Your task to perform on an android device: Go to network settings Image 0: 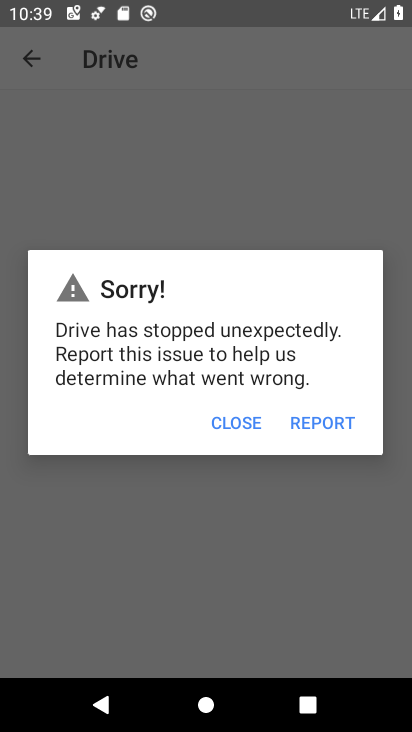
Step 0: press home button
Your task to perform on an android device: Go to network settings Image 1: 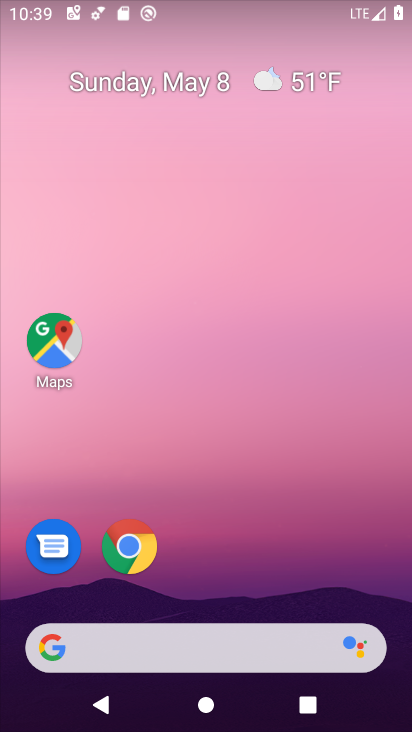
Step 1: drag from (381, 610) to (308, 173)
Your task to perform on an android device: Go to network settings Image 2: 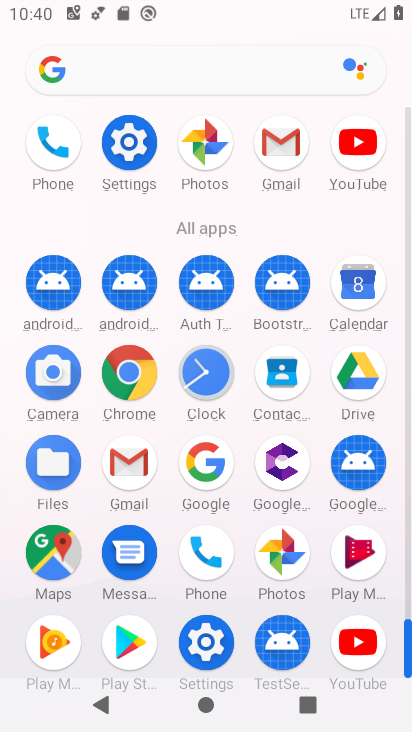
Step 2: click (407, 602)
Your task to perform on an android device: Go to network settings Image 3: 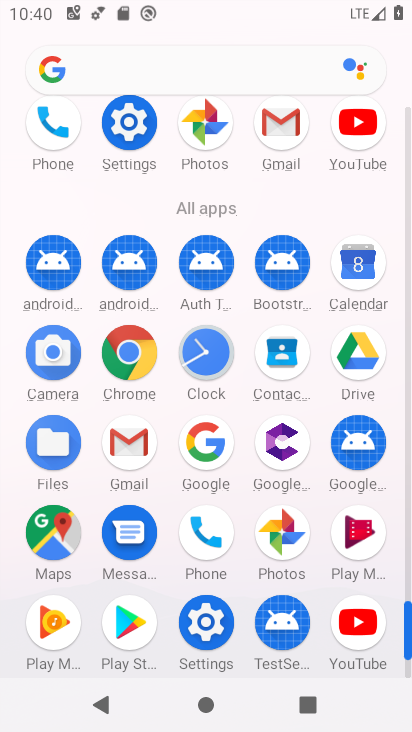
Step 3: click (208, 618)
Your task to perform on an android device: Go to network settings Image 4: 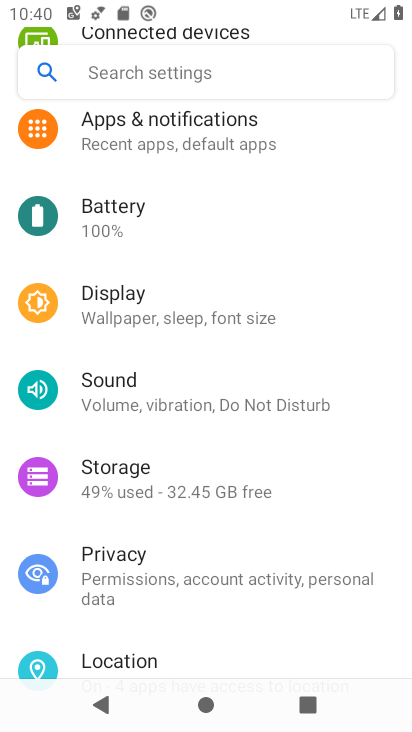
Step 4: drag from (231, 108) to (185, 368)
Your task to perform on an android device: Go to network settings Image 5: 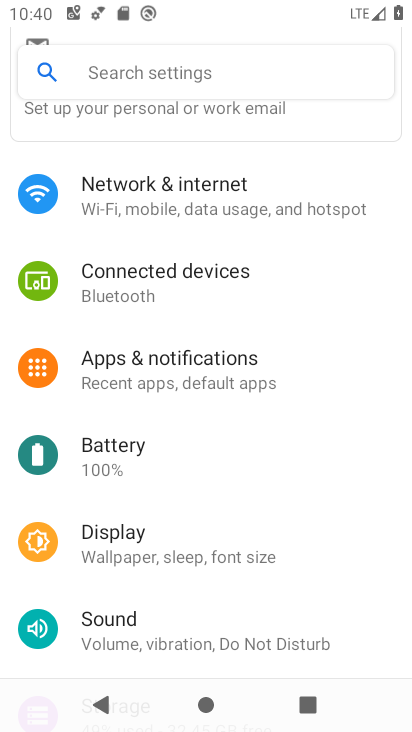
Step 5: click (159, 185)
Your task to perform on an android device: Go to network settings Image 6: 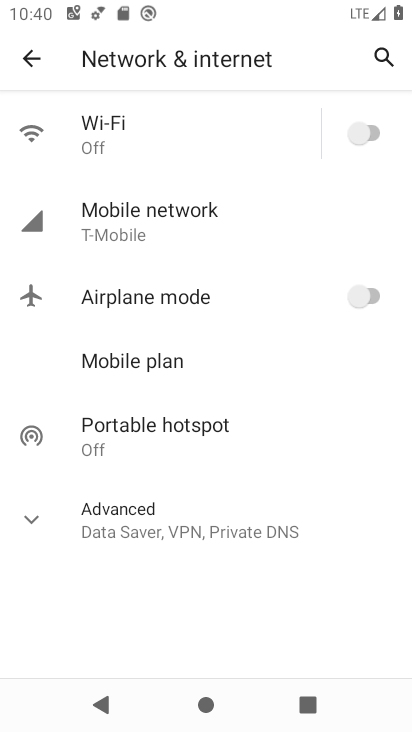
Step 6: click (118, 211)
Your task to perform on an android device: Go to network settings Image 7: 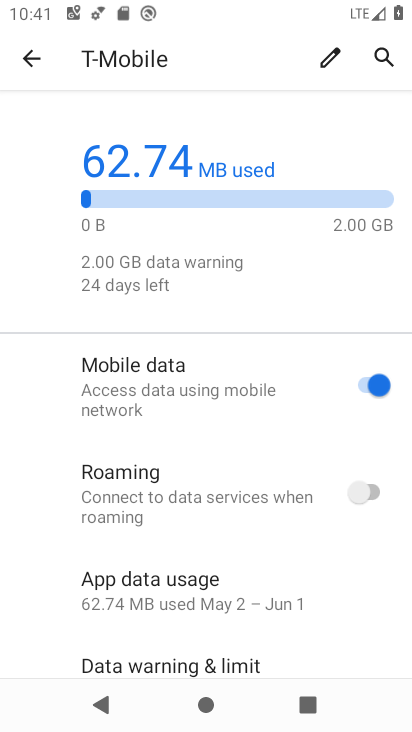
Step 7: task complete